Your task to perform on an android device: open chrome privacy settings Image 0: 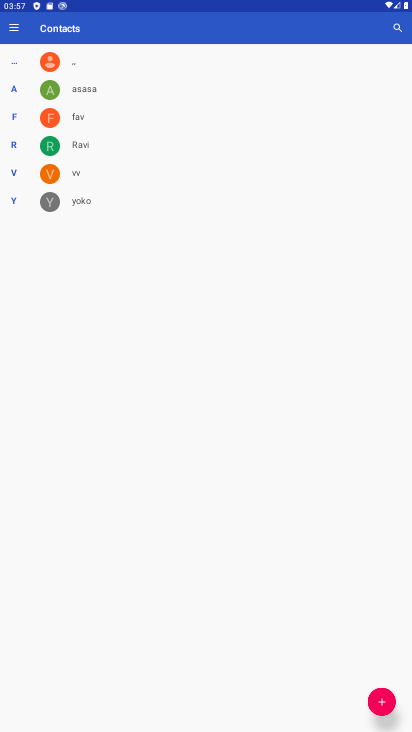
Step 0: press home button
Your task to perform on an android device: open chrome privacy settings Image 1: 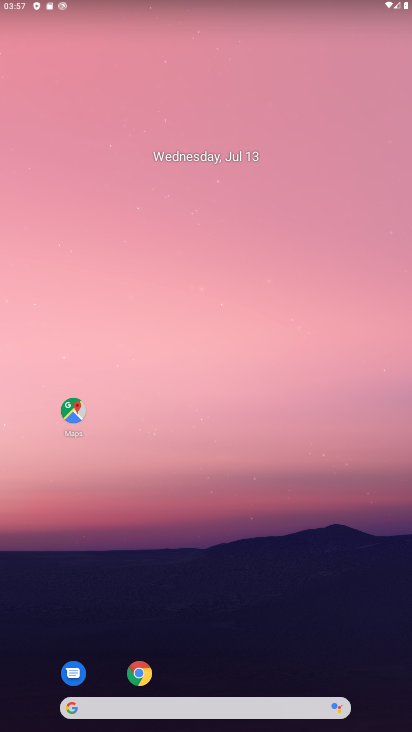
Step 1: drag from (252, 621) to (34, 59)
Your task to perform on an android device: open chrome privacy settings Image 2: 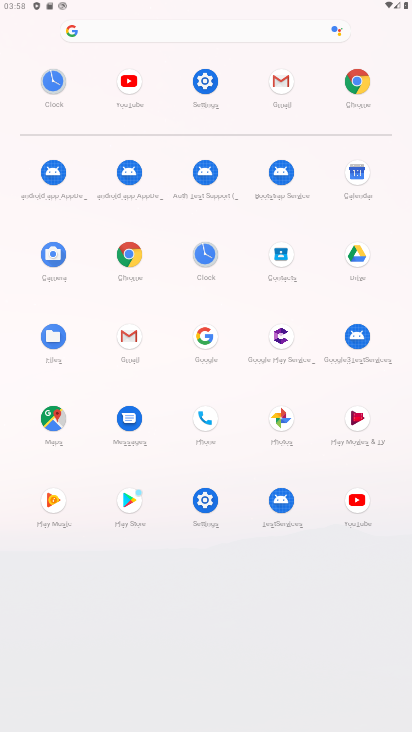
Step 2: click (210, 510)
Your task to perform on an android device: open chrome privacy settings Image 3: 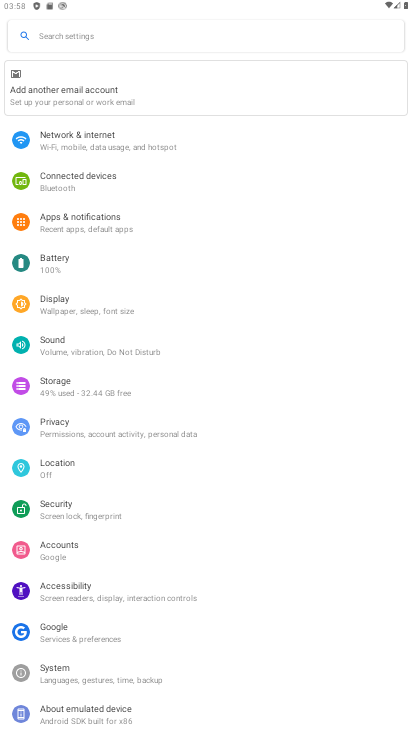
Step 3: click (56, 425)
Your task to perform on an android device: open chrome privacy settings Image 4: 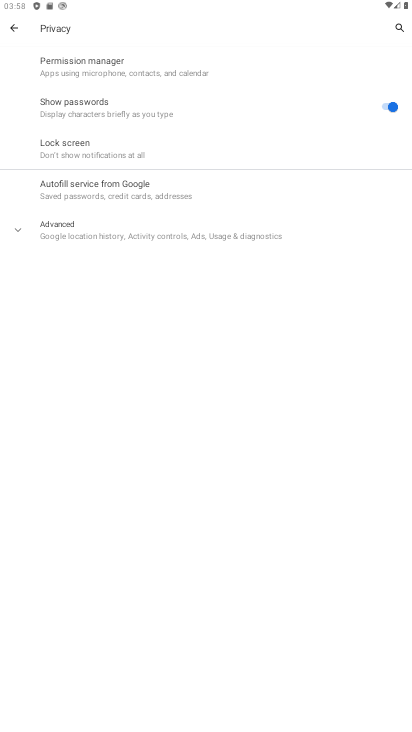
Step 4: press home button
Your task to perform on an android device: open chrome privacy settings Image 5: 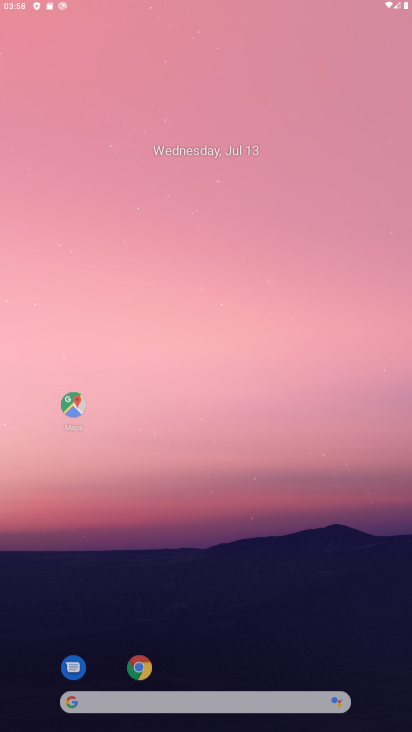
Step 5: drag from (268, 642) to (247, 97)
Your task to perform on an android device: open chrome privacy settings Image 6: 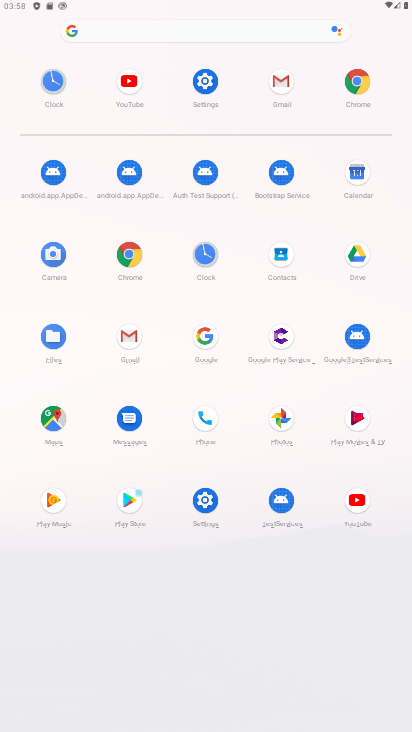
Step 6: click (124, 255)
Your task to perform on an android device: open chrome privacy settings Image 7: 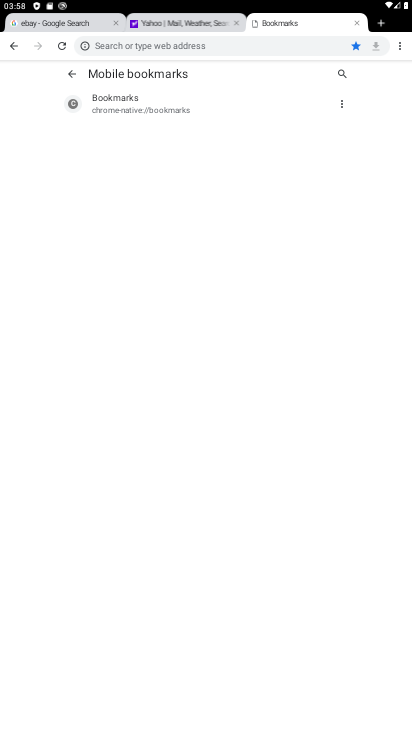
Step 7: click (7, 44)
Your task to perform on an android device: open chrome privacy settings Image 8: 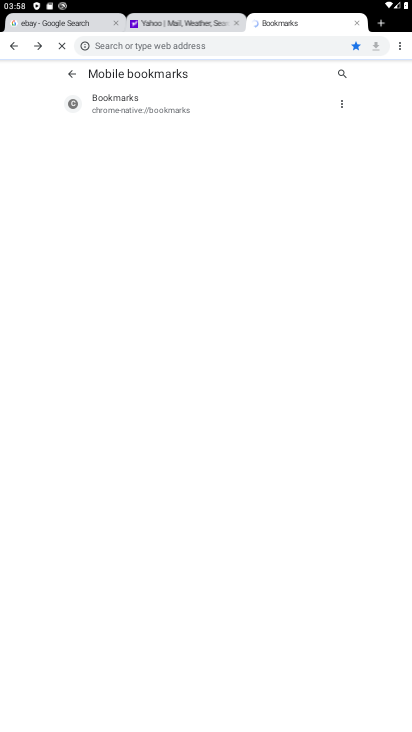
Step 8: click (7, 44)
Your task to perform on an android device: open chrome privacy settings Image 9: 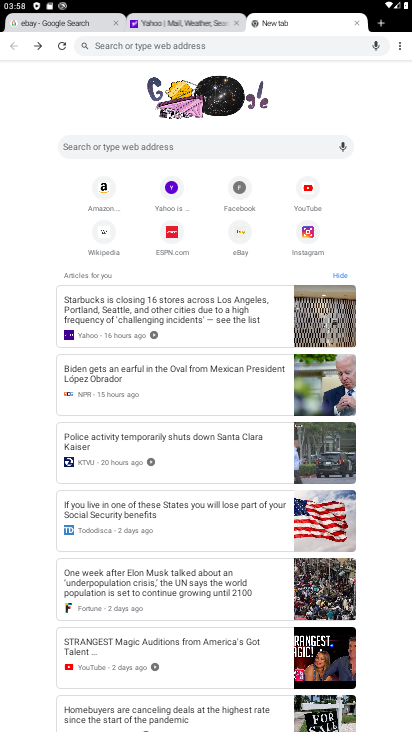
Step 9: drag from (397, 44) to (316, 241)
Your task to perform on an android device: open chrome privacy settings Image 10: 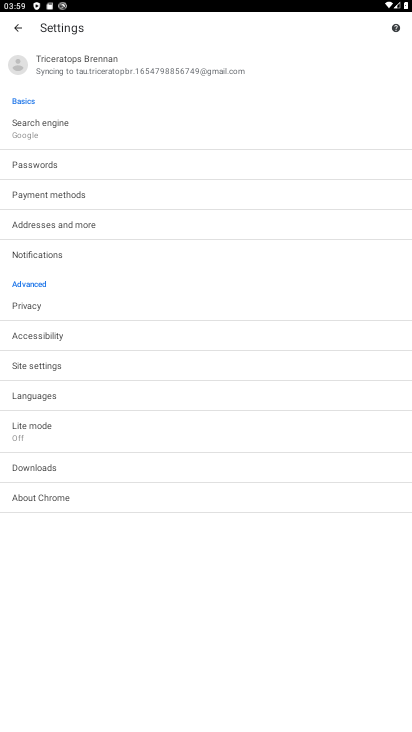
Step 10: click (55, 306)
Your task to perform on an android device: open chrome privacy settings Image 11: 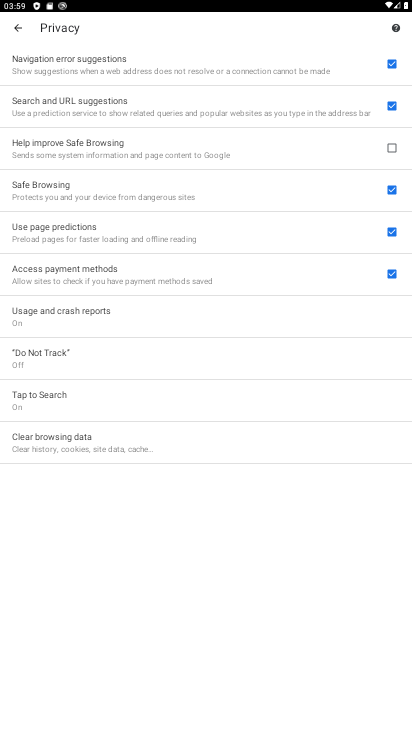
Step 11: task complete